Your task to perform on an android device: turn off sleep mode Image 0: 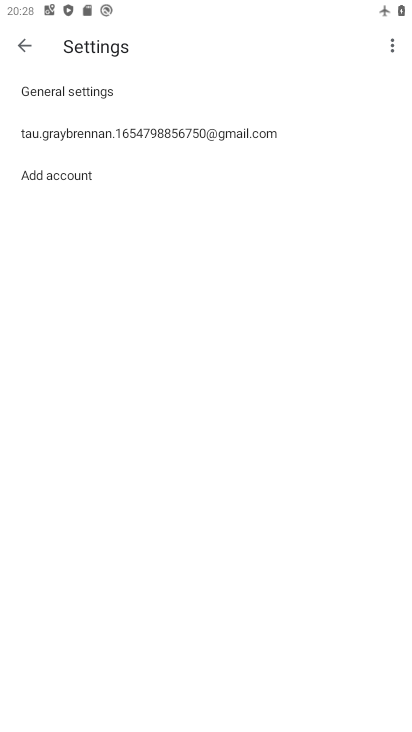
Step 0: press home button
Your task to perform on an android device: turn off sleep mode Image 1: 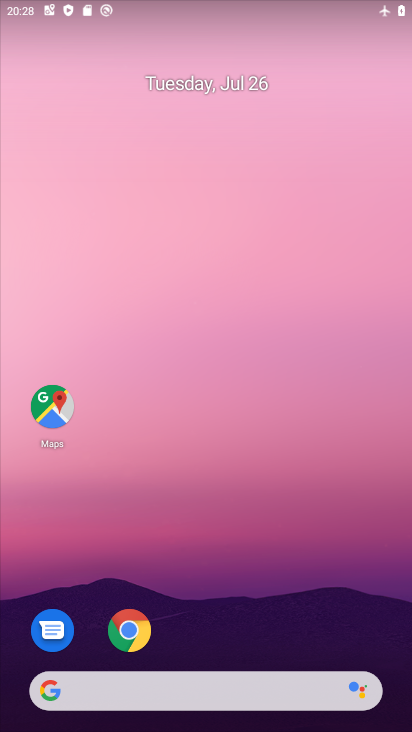
Step 1: drag from (226, 650) to (204, 10)
Your task to perform on an android device: turn off sleep mode Image 2: 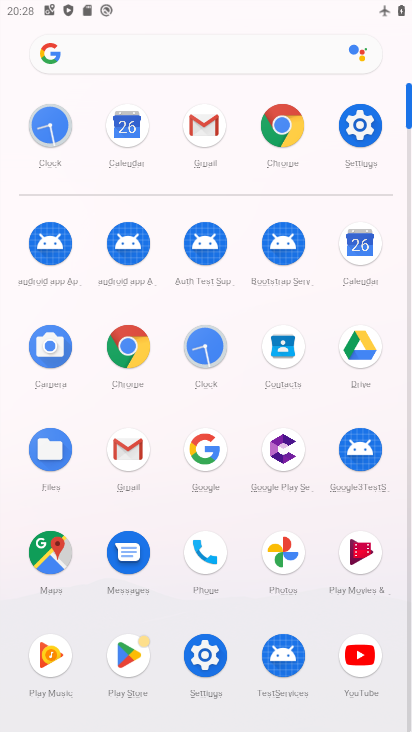
Step 2: click (353, 120)
Your task to perform on an android device: turn off sleep mode Image 3: 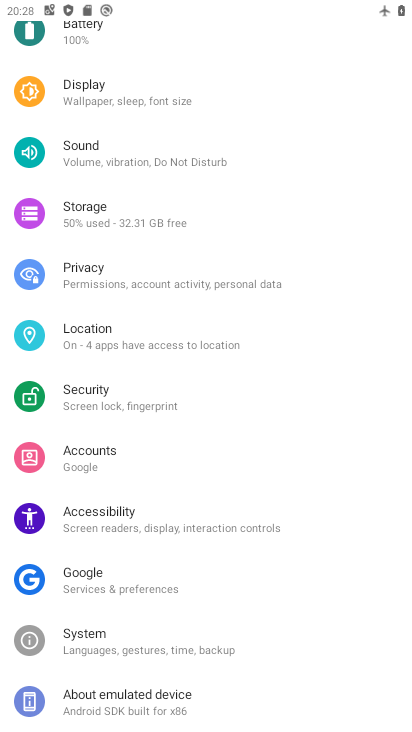
Step 3: task complete